Your task to perform on an android device: check battery use Image 0: 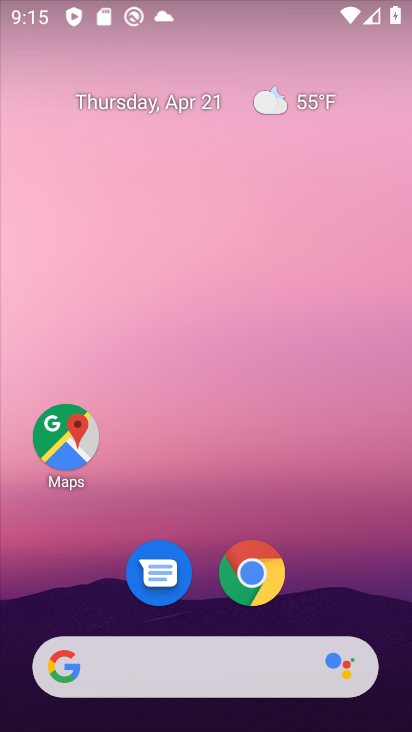
Step 0: drag from (336, 584) to (275, 140)
Your task to perform on an android device: check battery use Image 1: 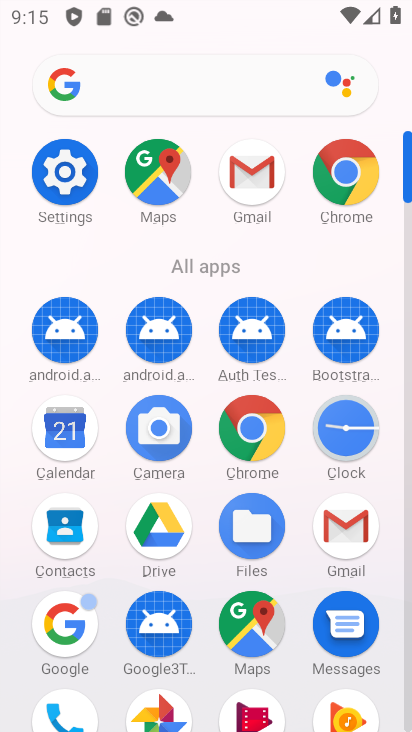
Step 1: click (63, 169)
Your task to perform on an android device: check battery use Image 2: 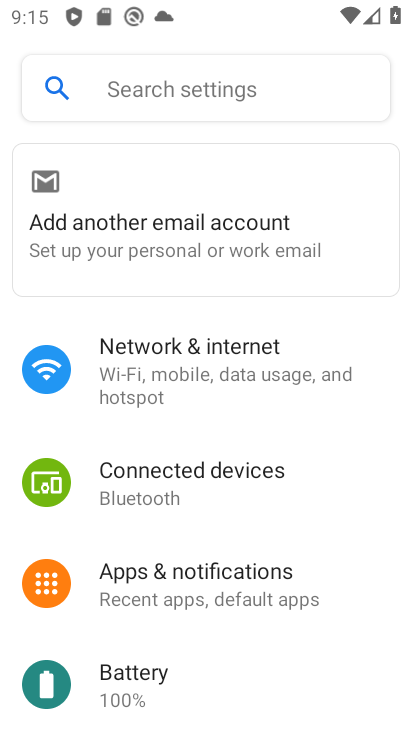
Step 2: drag from (246, 659) to (257, 296)
Your task to perform on an android device: check battery use Image 3: 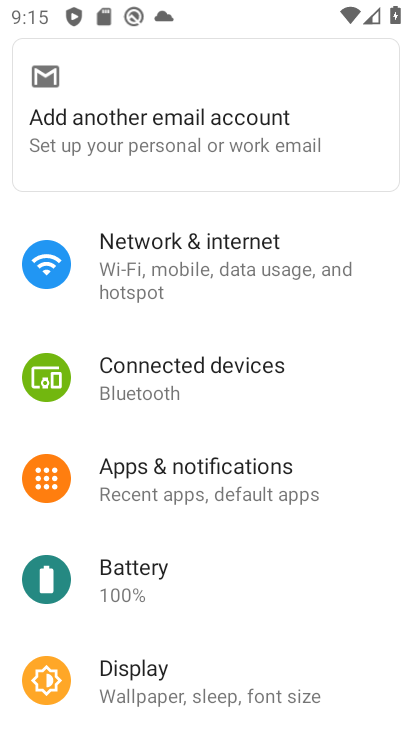
Step 3: click (123, 590)
Your task to perform on an android device: check battery use Image 4: 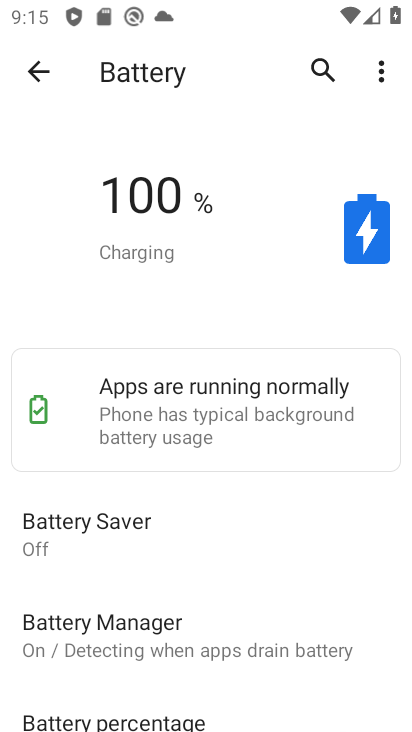
Step 4: task complete